Your task to perform on an android device: Open calendar and show me the third week of next month Image 0: 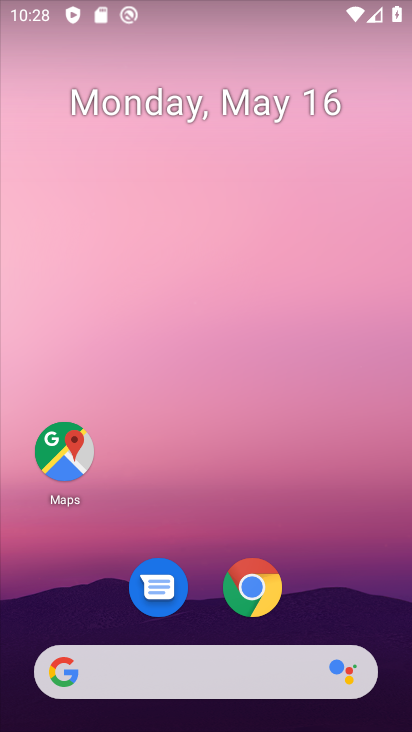
Step 0: drag from (334, 577) to (192, 0)
Your task to perform on an android device: Open calendar and show me the third week of next month Image 1: 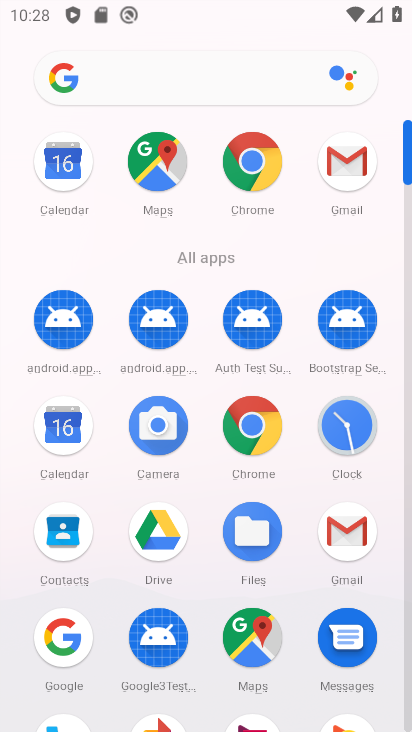
Step 1: drag from (18, 513) to (11, 195)
Your task to perform on an android device: Open calendar and show me the third week of next month Image 2: 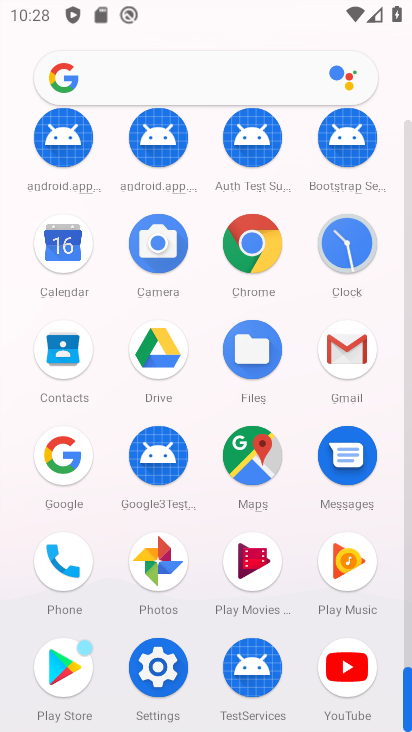
Step 2: click (59, 239)
Your task to perform on an android device: Open calendar and show me the third week of next month Image 3: 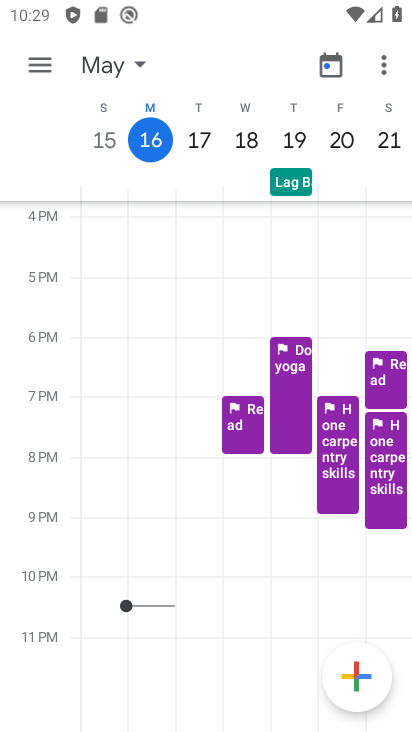
Step 3: click (120, 68)
Your task to perform on an android device: Open calendar and show me the third week of next month Image 4: 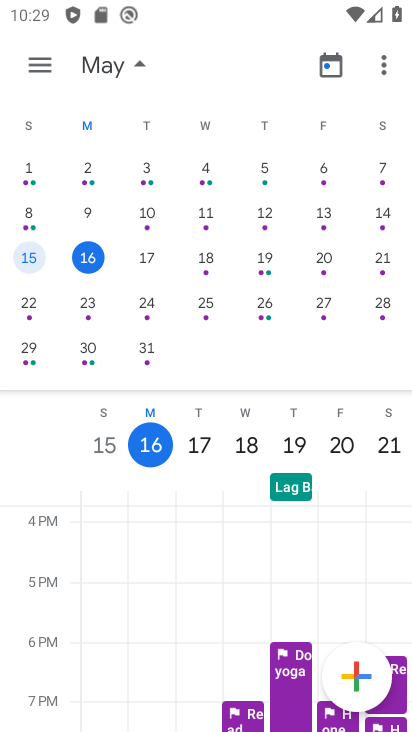
Step 4: drag from (357, 271) to (20, 293)
Your task to perform on an android device: Open calendar and show me the third week of next month Image 5: 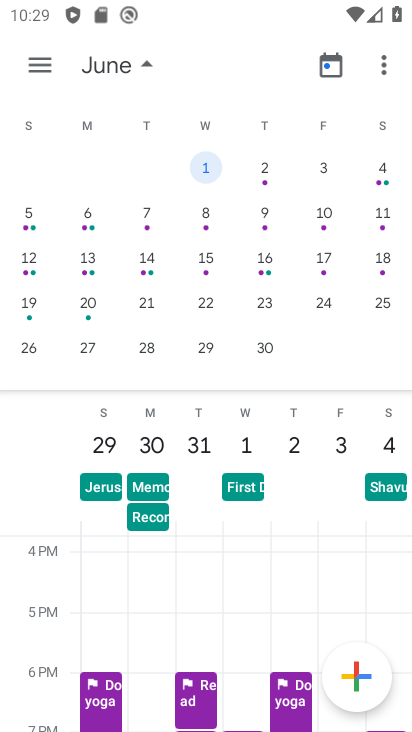
Step 5: click (22, 253)
Your task to perform on an android device: Open calendar and show me the third week of next month Image 6: 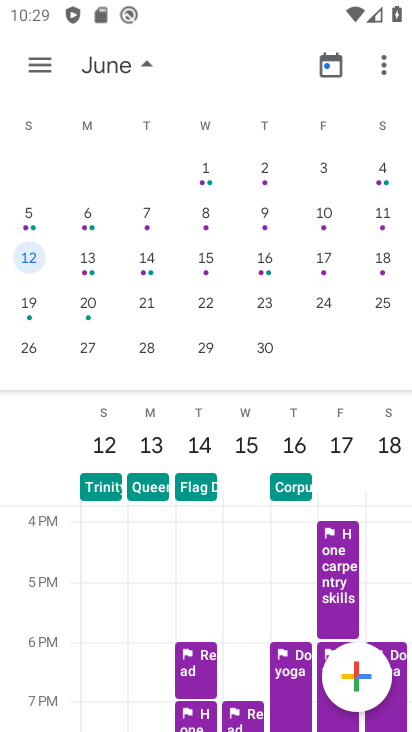
Step 6: click (28, 38)
Your task to perform on an android device: Open calendar and show me the third week of next month Image 7: 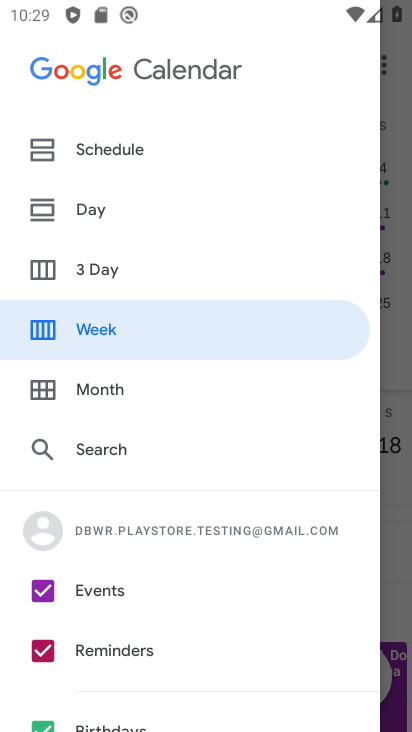
Step 7: click (148, 330)
Your task to perform on an android device: Open calendar and show me the third week of next month Image 8: 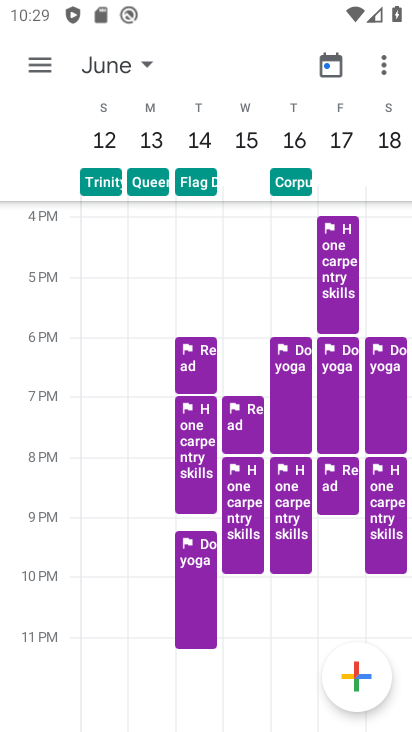
Step 8: task complete